Your task to perform on an android device: Go to internet settings Image 0: 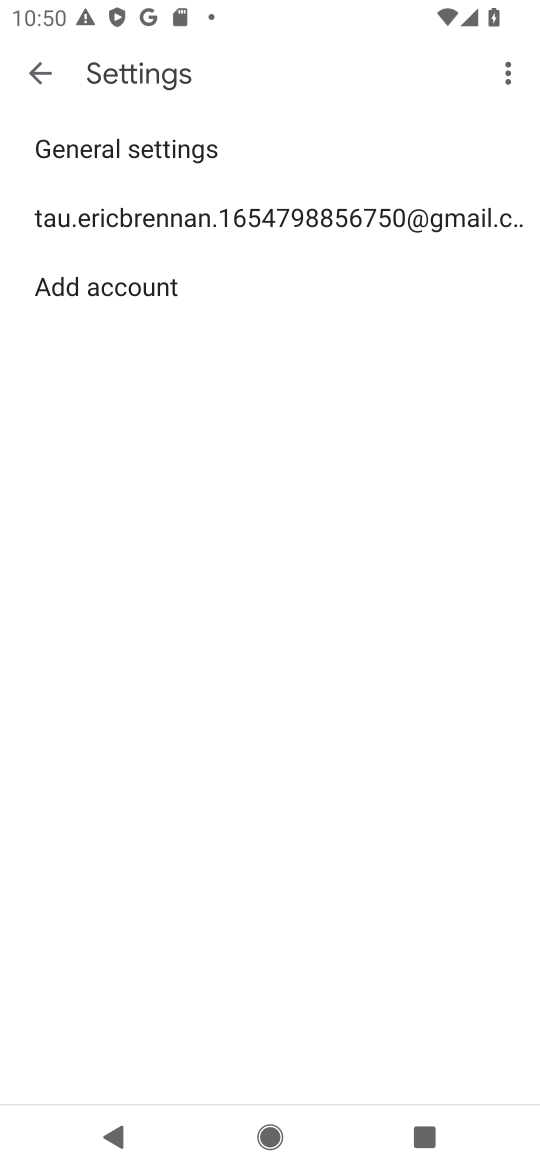
Step 0: press home button
Your task to perform on an android device: Go to internet settings Image 1: 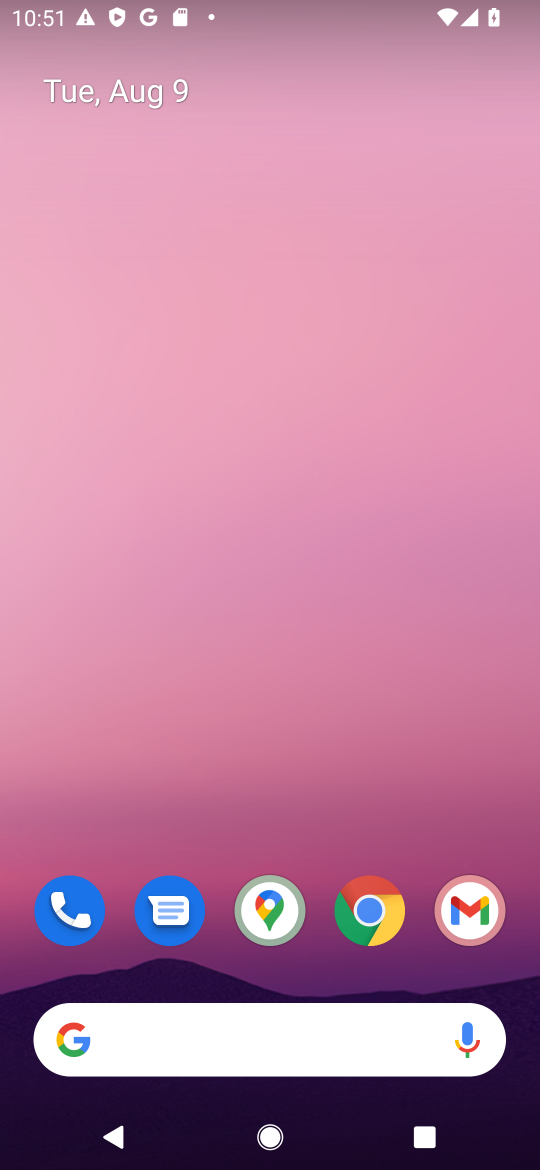
Step 1: drag from (126, 593) to (294, 117)
Your task to perform on an android device: Go to internet settings Image 2: 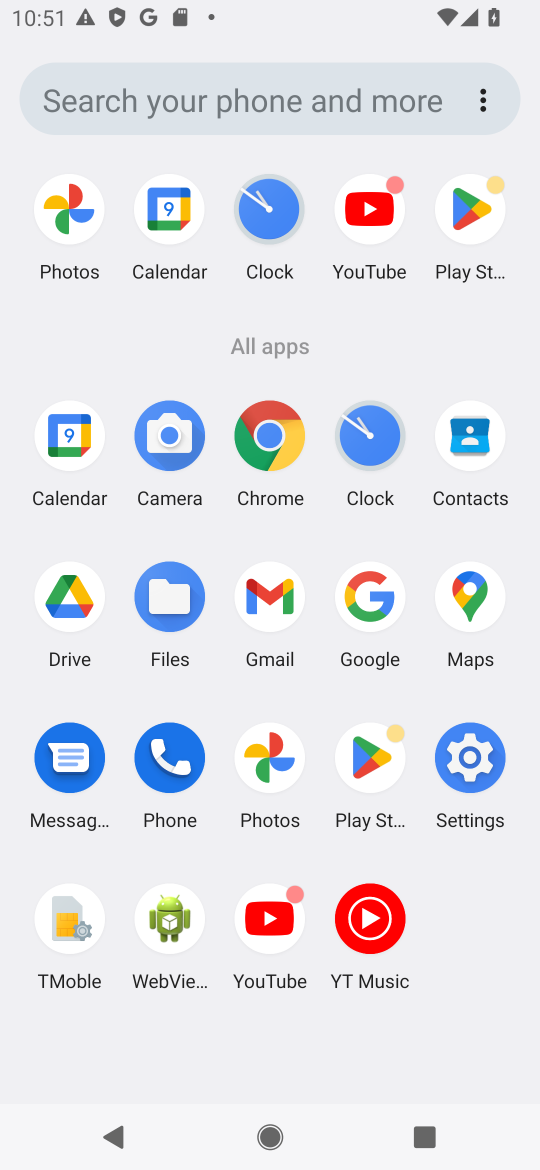
Step 2: click (460, 759)
Your task to perform on an android device: Go to internet settings Image 3: 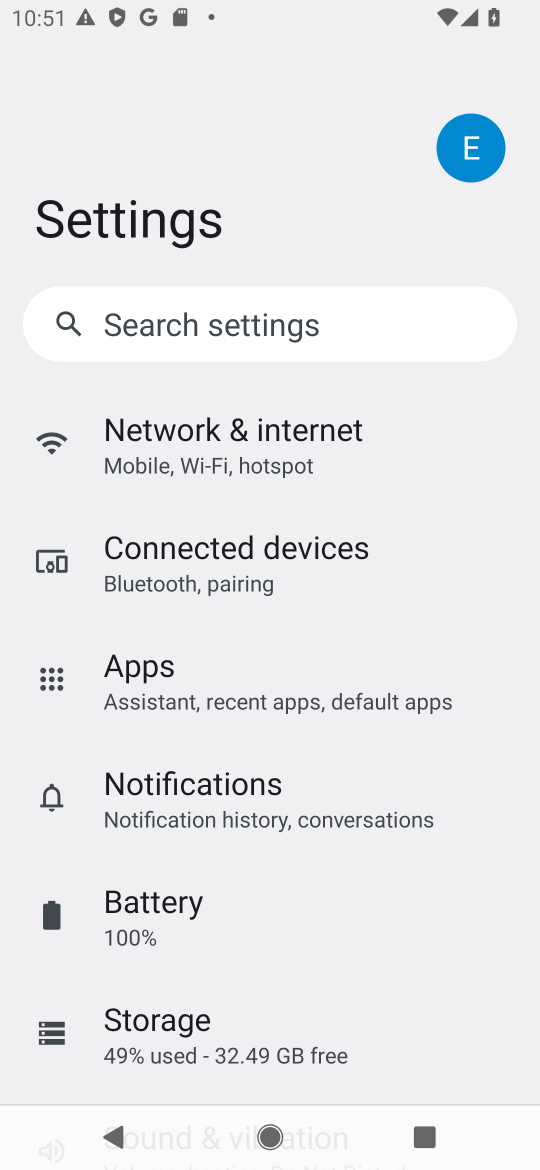
Step 3: click (247, 431)
Your task to perform on an android device: Go to internet settings Image 4: 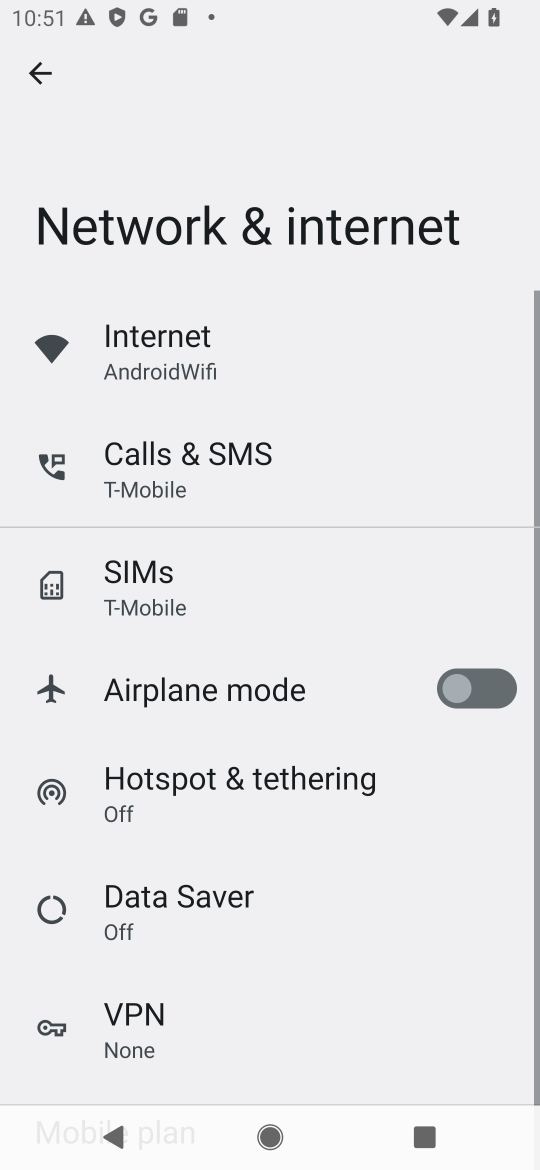
Step 4: click (157, 328)
Your task to perform on an android device: Go to internet settings Image 5: 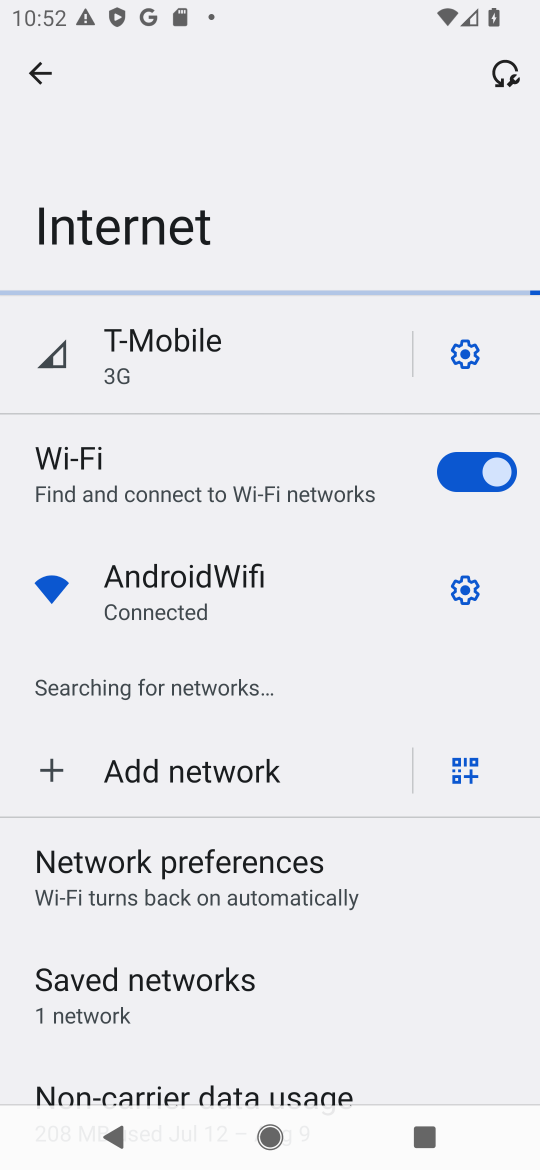
Step 5: task complete